Your task to perform on an android device: turn on the 12-hour format for clock Image 0: 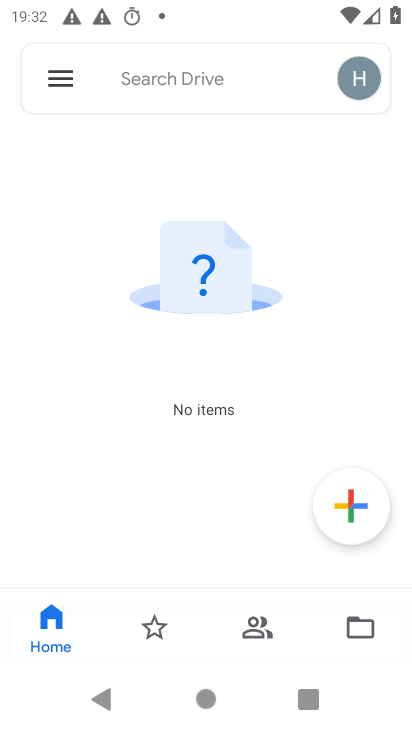
Step 0: press home button
Your task to perform on an android device: turn on the 12-hour format for clock Image 1: 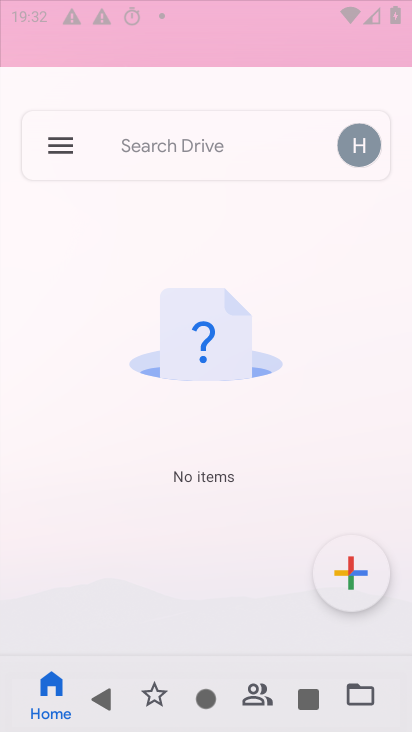
Step 1: press home button
Your task to perform on an android device: turn on the 12-hour format for clock Image 2: 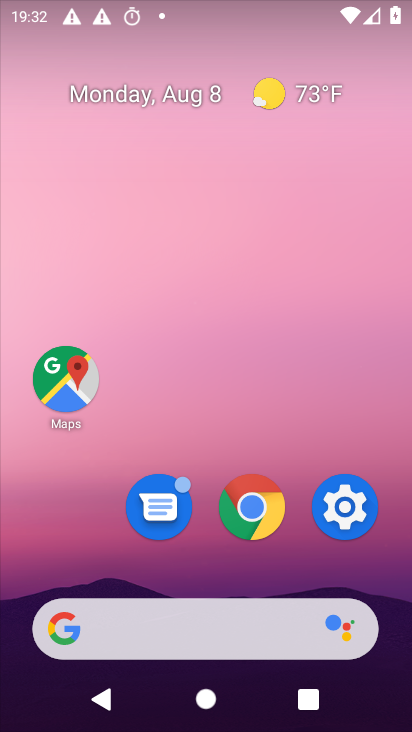
Step 2: drag from (264, 678) to (169, 231)
Your task to perform on an android device: turn on the 12-hour format for clock Image 3: 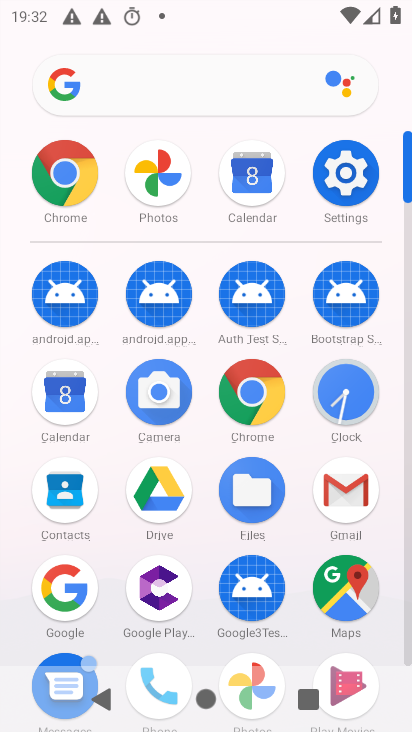
Step 3: click (334, 398)
Your task to perform on an android device: turn on the 12-hour format for clock Image 4: 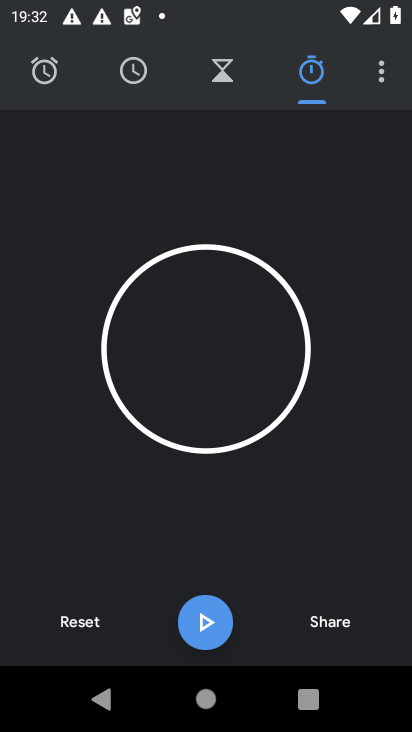
Step 4: click (385, 89)
Your task to perform on an android device: turn on the 12-hour format for clock Image 5: 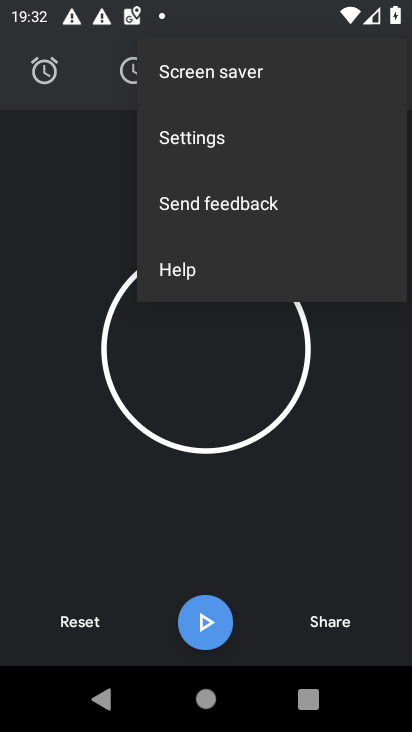
Step 5: click (221, 157)
Your task to perform on an android device: turn on the 12-hour format for clock Image 6: 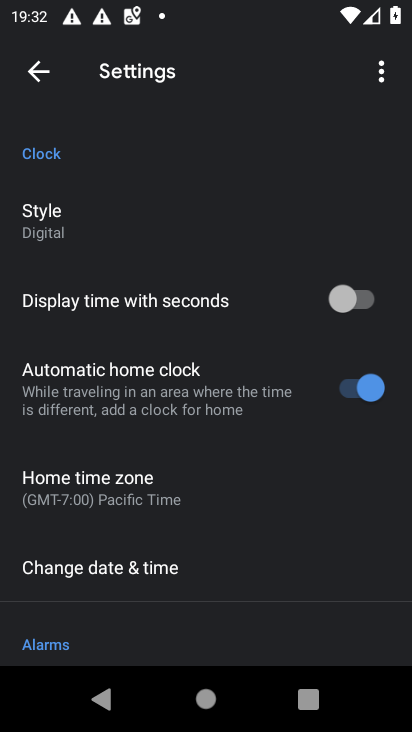
Step 6: click (130, 573)
Your task to perform on an android device: turn on the 12-hour format for clock Image 7: 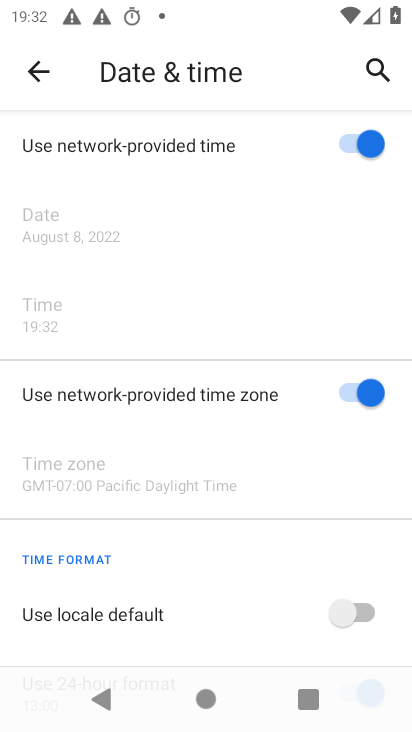
Step 7: drag from (250, 536) to (232, 314)
Your task to perform on an android device: turn on the 12-hour format for clock Image 8: 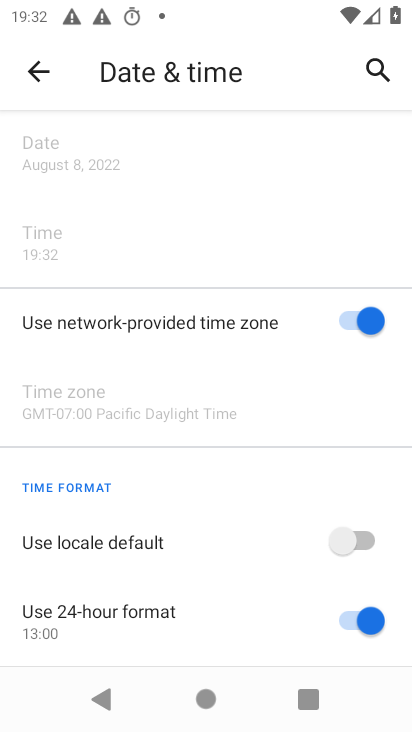
Step 8: click (363, 624)
Your task to perform on an android device: turn on the 12-hour format for clock Image 9: 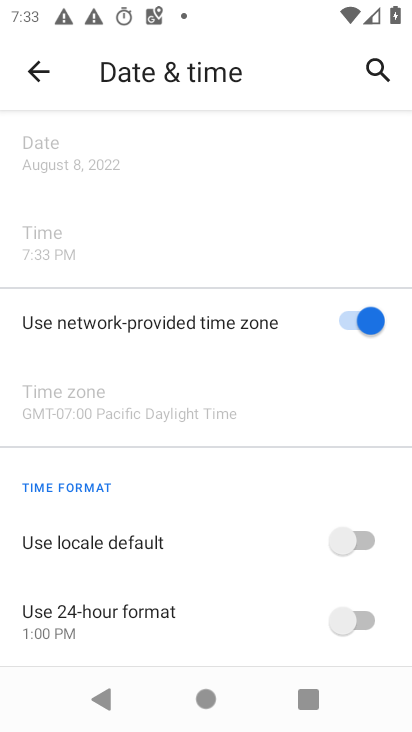
Step 9: task complete